Your task to perform on an android device: turn off wifi Image 0: 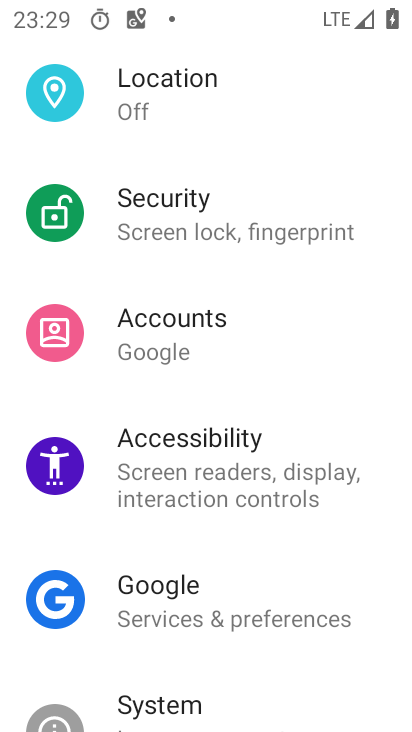
Step 0: drag from (276, 199) to (295, 591)
Your task to perform on an android device: turn off wifi Image 1: 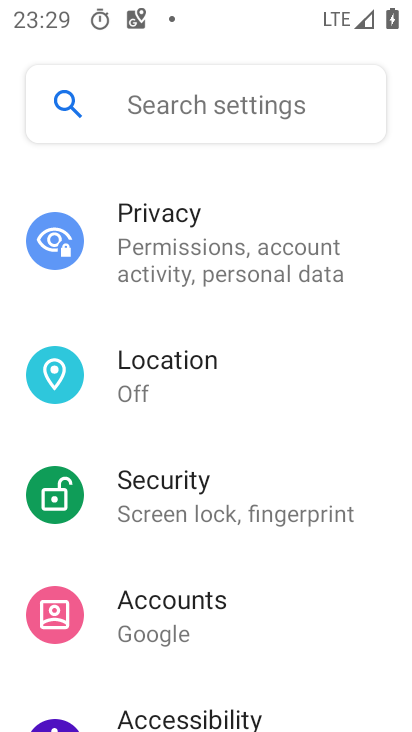
Step 1: drag from (271, 256) to (243, 582)
Your task to perform on an android device: turn off wifi Image 2: 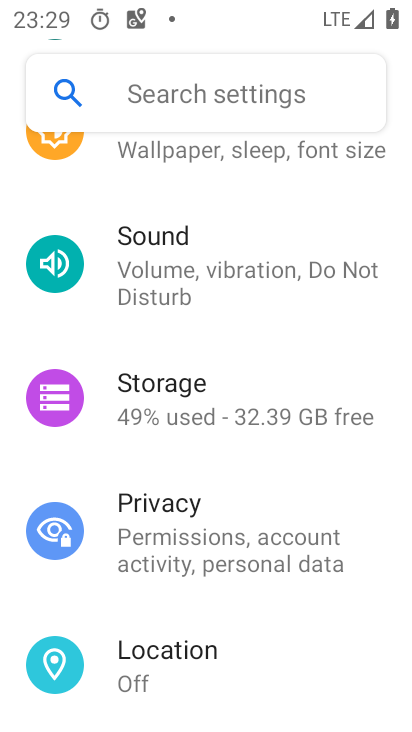
Step 2: drag from (239, 224) to (235, 495)
Your task to perform on an android device: turn off wifi Image 3: 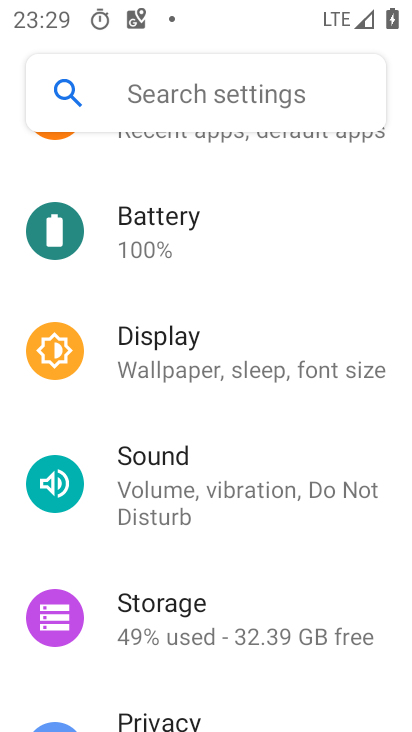
Step 3: drag from (321, 201) to (356, 449)
Your task to perform on an android device: turn off wifi Image 4: 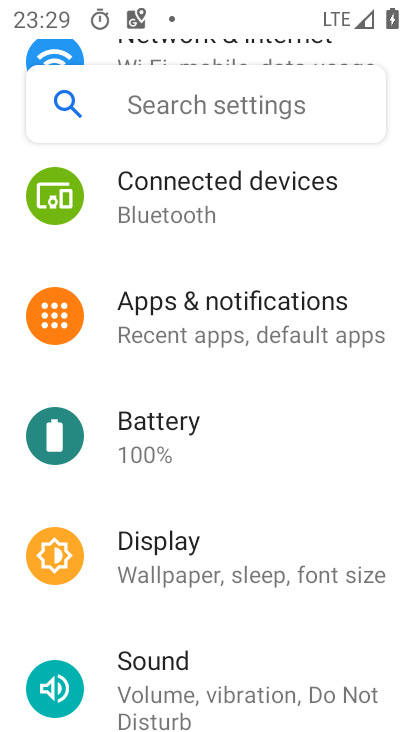
Step 4: drag from (297, 272) to (370, 478)
Your task to perform on an android device: turn off wifi Image 5: 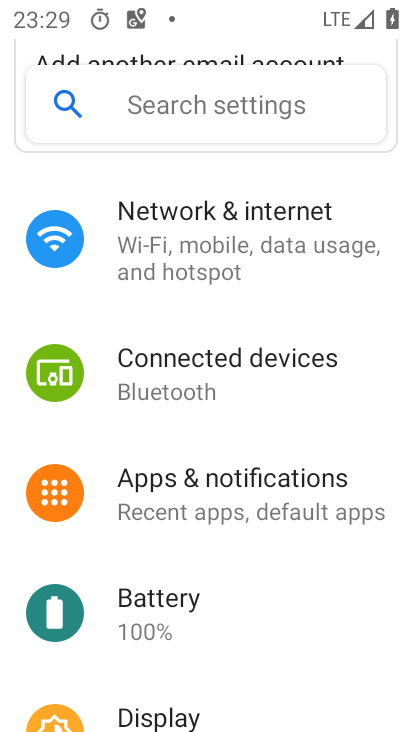
Step 5: click (243, 267)
Your task to perform on an android device: turn off wifi Image 6: 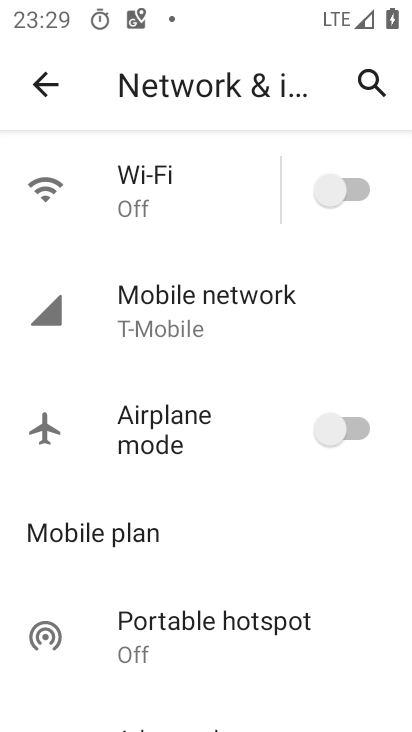
Step 6: task complete